Your task to perform on an android device: uninstall "Move to iOS" Image 0: 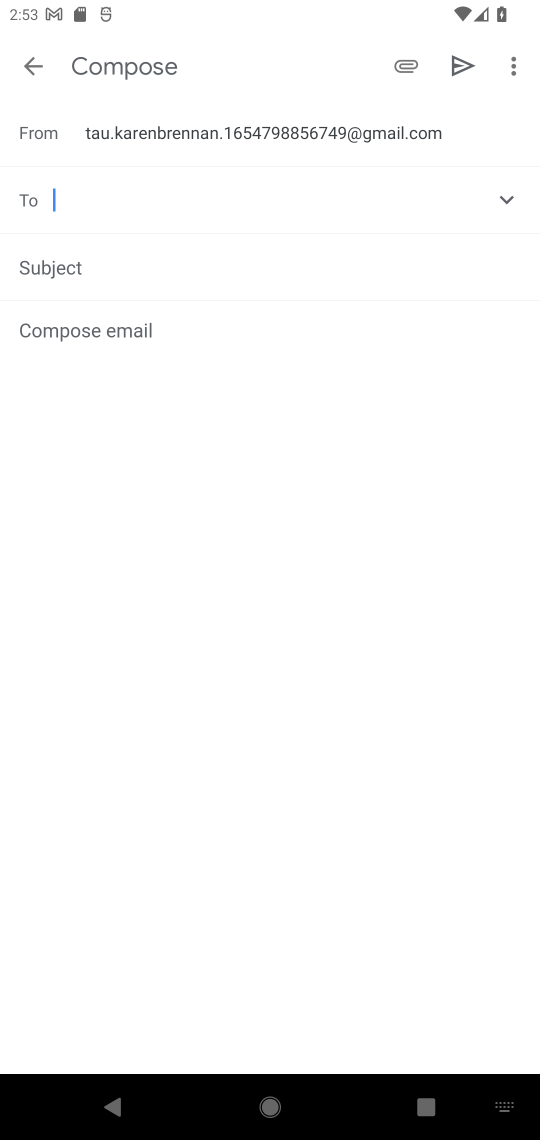
Step 0: press home button
Your task to perform on an android device: uninstall "Move to iOS" Image 1: 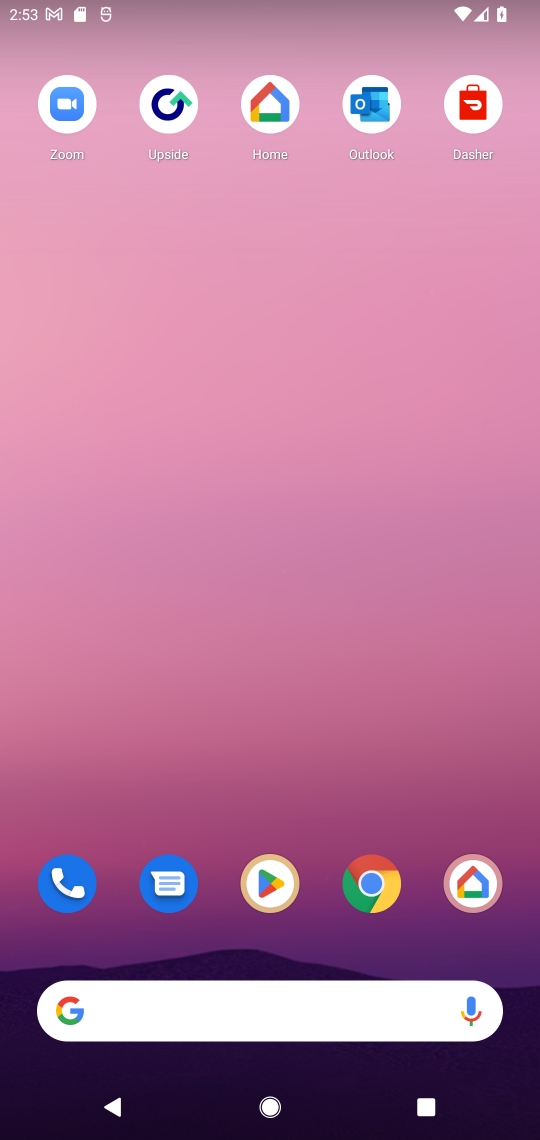
Step 1: drag from (293, 694) to (370, 174)
Your task to perform on an android device: uninstall "Move to iOS" Image 2: 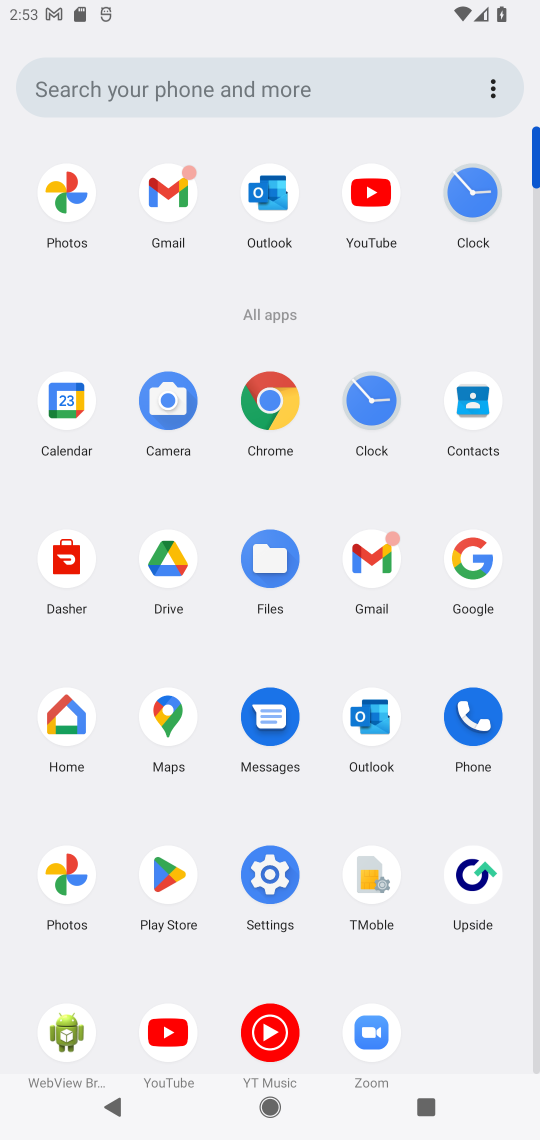
Step 2: click (162, 883)
Your task to perform on an android device: uninstall "Move to iOS" Image 3: 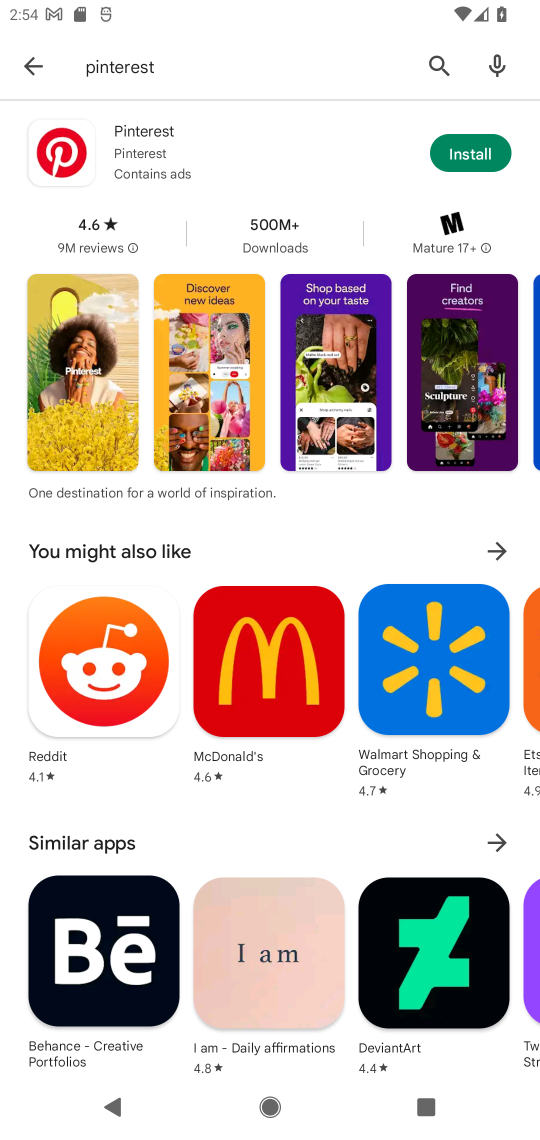
Step 3: click (429, 68)
Your task to perform on an android device: uninstall "Move to iOS" Image 4: 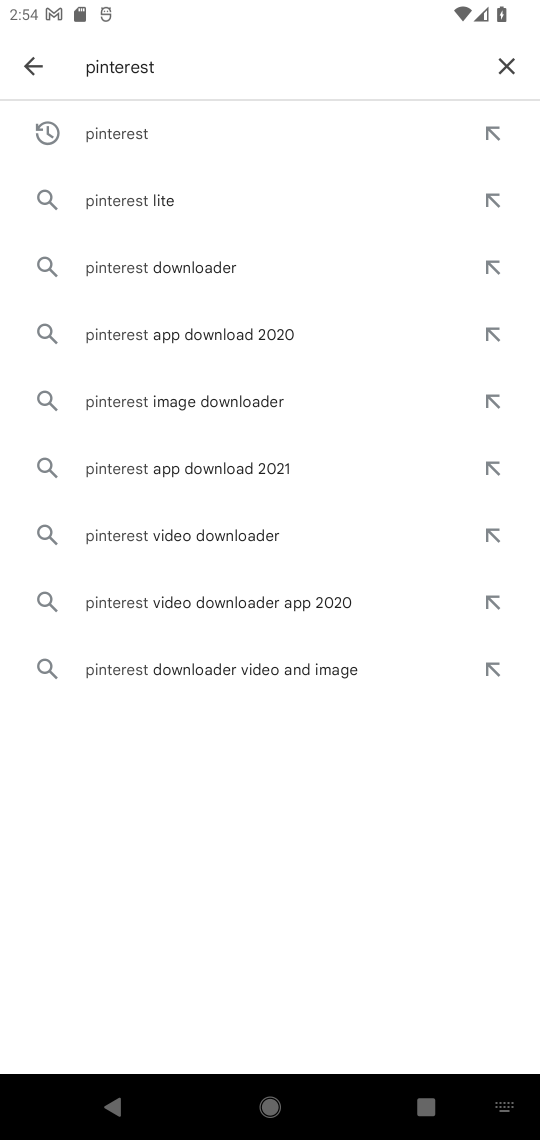
Step 4: click (500, 60)
Your task to perform on an android device: uninstall "Move to iOS" Image 5: 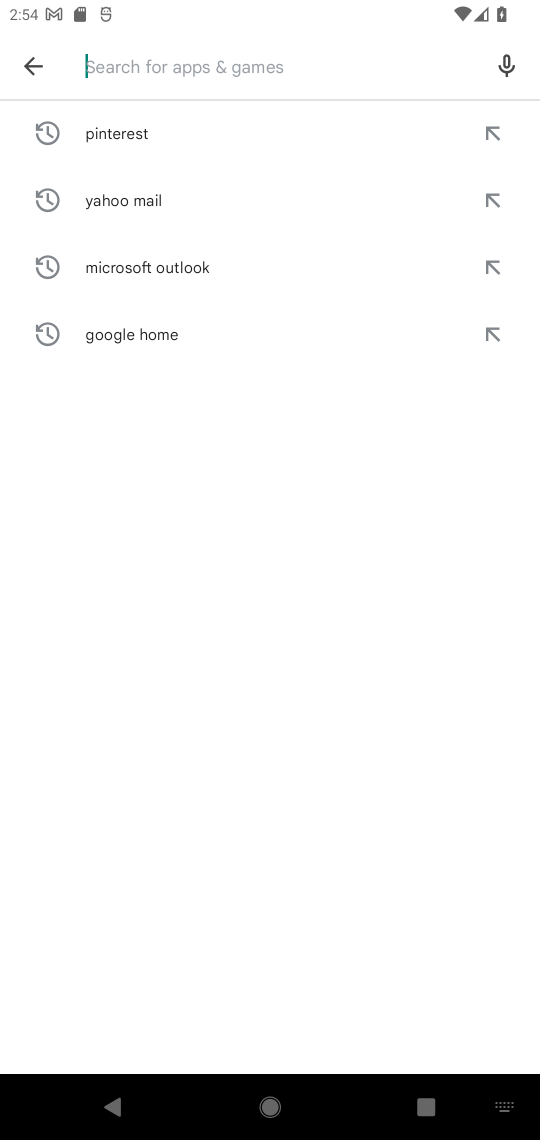
Step 5: type "Move to iOS"
Your task to perform on an android device: uninstall "Move to iOS" Image 6: 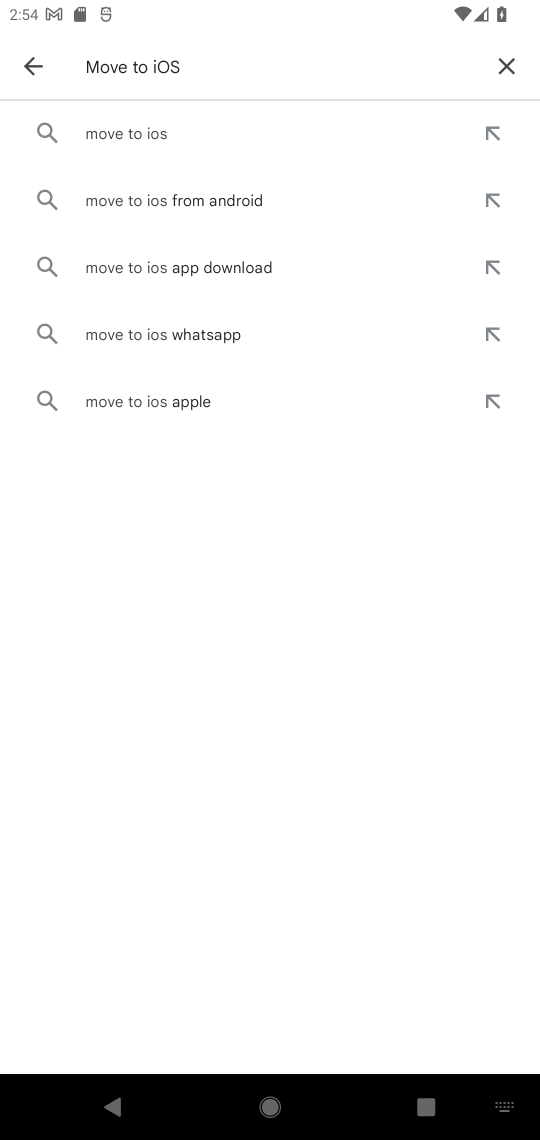
Step 6: click (132, 139)
Your task to perform on an android device: uninstall "Move to iOS" Image 7: 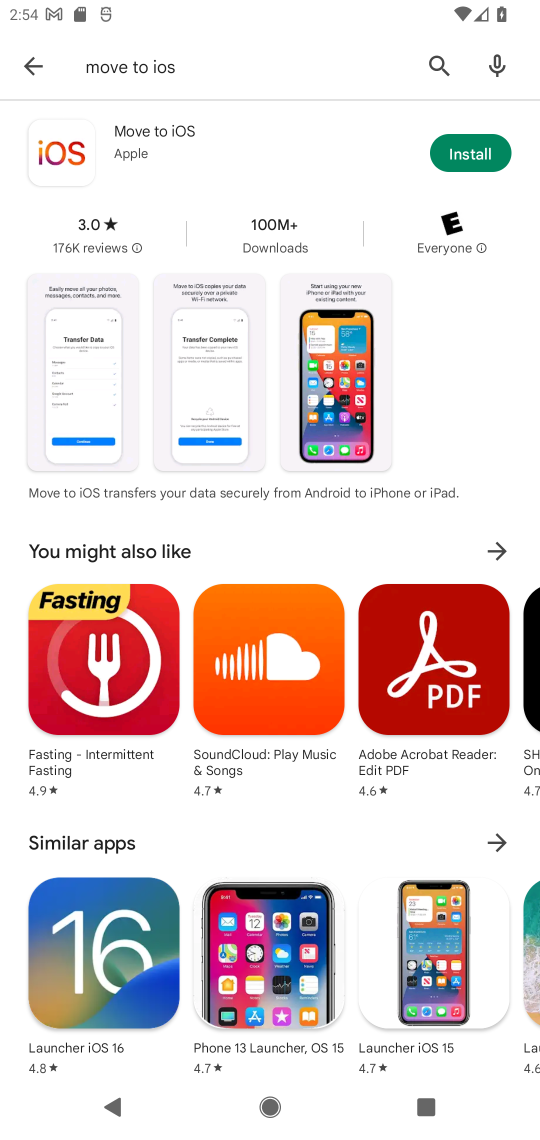
Step 7: task complete